Your task to perform on an android device: turn off notifications in google photos Image 0: 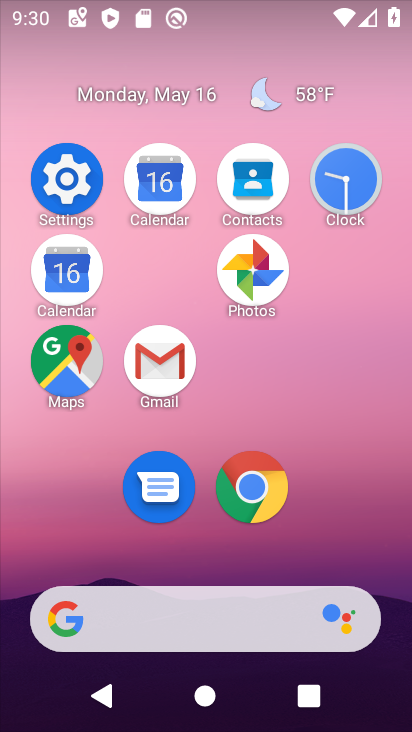
Step 0: click (232, 266)
Your task to perform on an android device: turn off notifications in google photos Image 1: 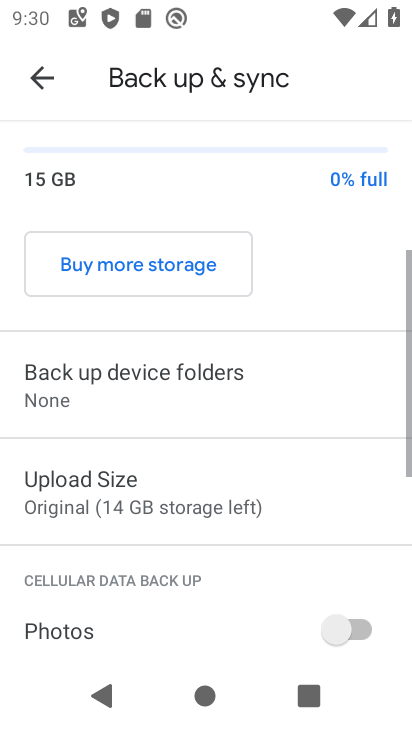
Step 1: click (25, 68)
Your task to perform on an android device: turn off notifications in google photos Image 2: 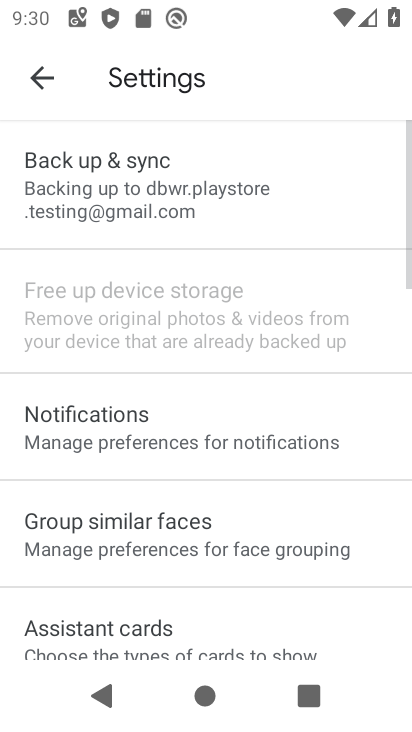
Step 2: click (169, 429)
Your task to perform on an android device: turn off notifications in google photos Image 3: 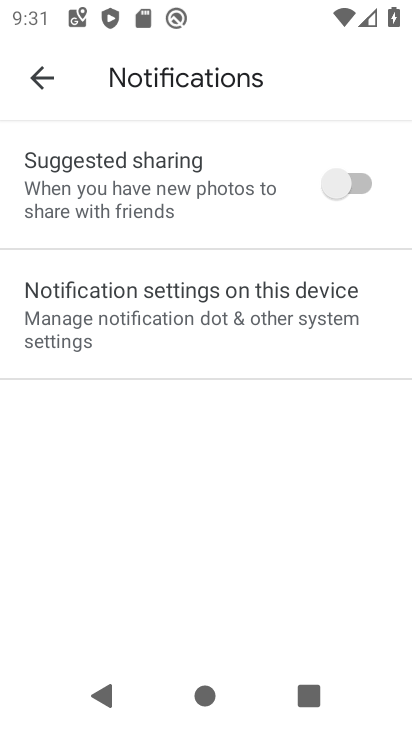
Step 3: click (234, 303)
Your task to perform on an android device: turn off notifications in google photos Image 4: 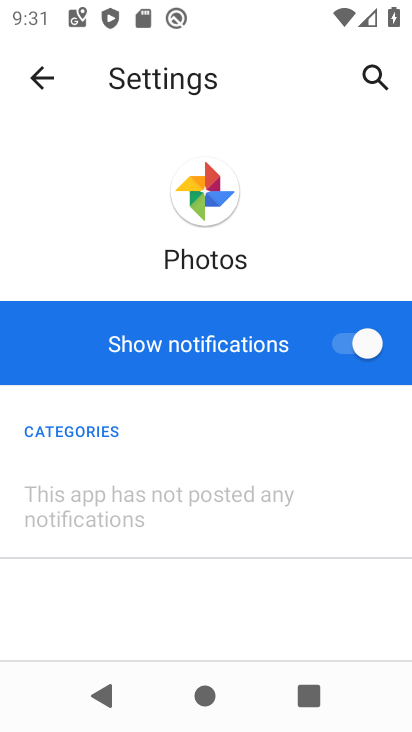
Step 4: click (370, 337)
Your task to perform on an android device: turn off notifications in google photos Image 5: 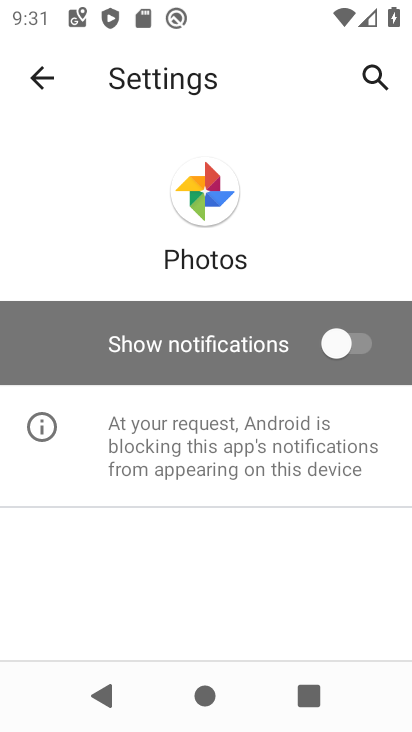
Step 5: task complete